Your task to perform on an android device: Open calendar and show me the fourth week of next month Image 0: 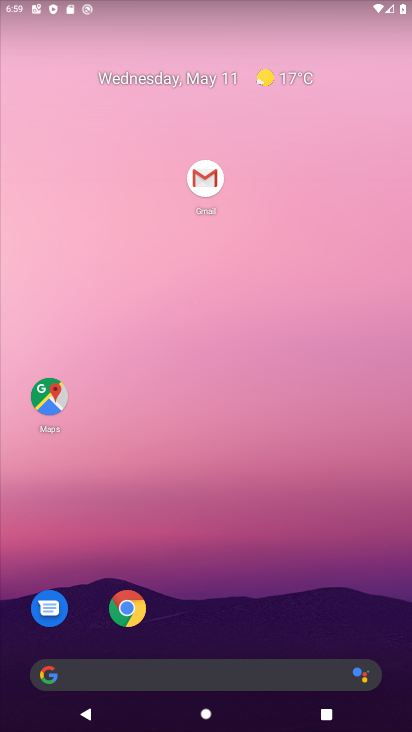
Step 0: drag from (227, 605) to (221, 125)
Your task to perform on an android device: Open calendar and show me the fourth week of next month Image 1: 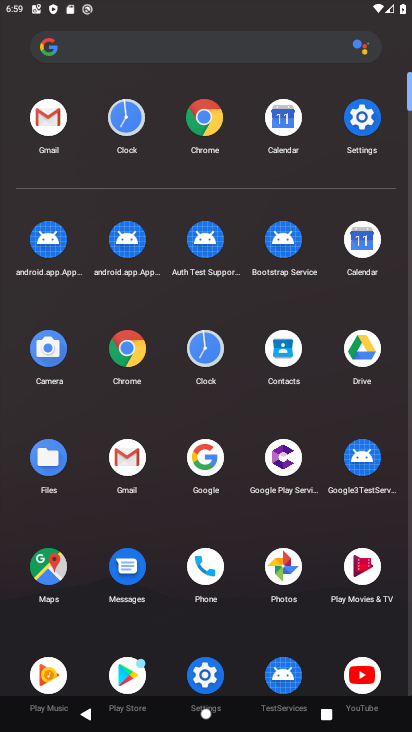
Step 1: click (271, 140)
Your task to perform on an android device: Open calendar and show me the fourth week of next month Image 2: 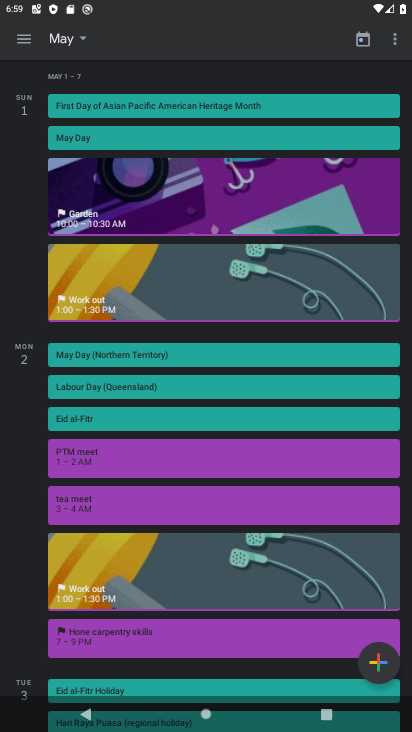
Step 2: click (78, 47)
Your task to perform on an android device: Open calendar and show me the fourth week of next month Image 3: 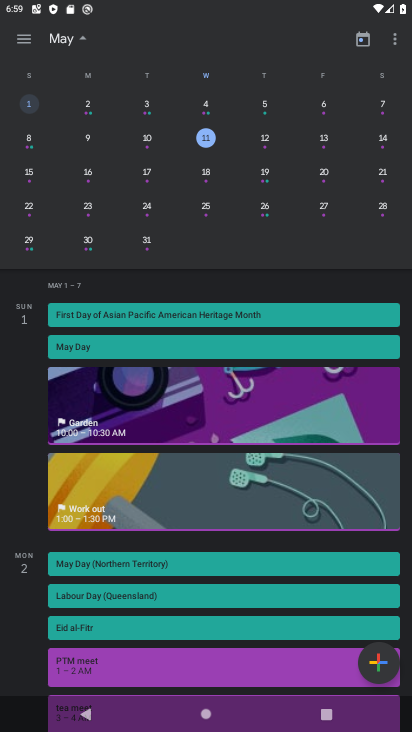
Step 3: drag from (359, 218) to (17, 204)
Your task to perform on an android device: Open calendar and show me the fourth week of next month Image 4: 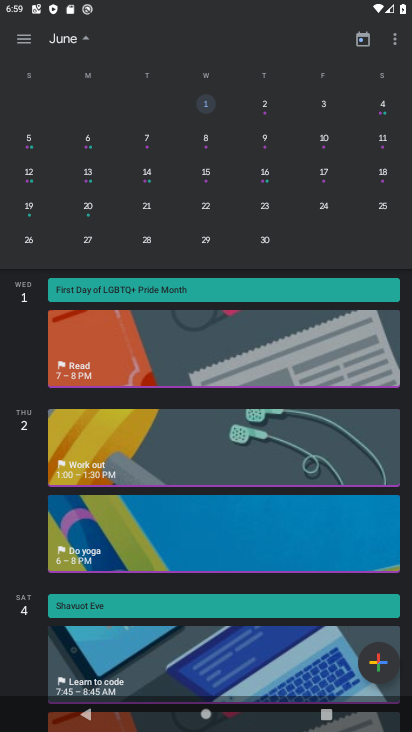
Step 4: click (150, 233)
Your task to perform on an android device: Open calendar and show me the fourth week of next month Image 5: 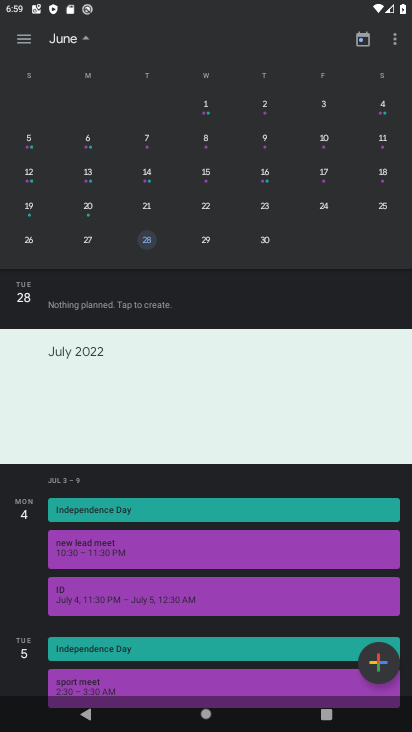
Step 5: task complete